Your task to perform on an android device: add a label to a message in the gmail app Image 0: 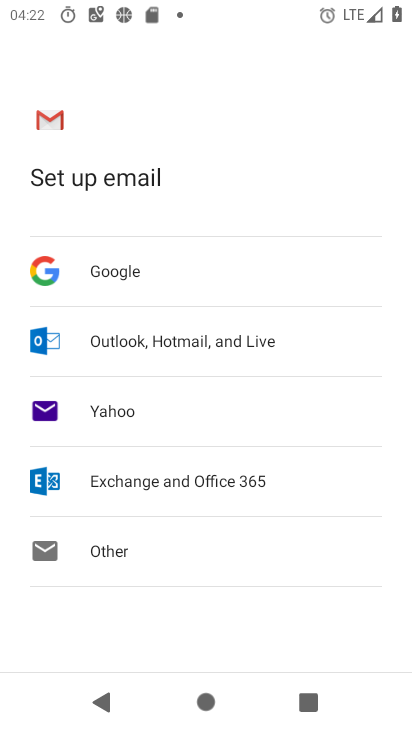
Step 0: press back button
Your task to perform on an android device: add a label to a message in the gmail app Image 1: 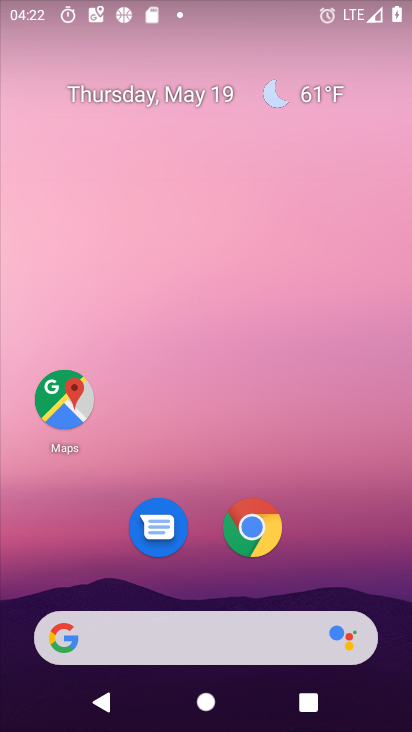
Step 1: drag from (195, 569) to (284, 54)
Your task to perform on an android device: add a label to a message in the gmail app Image 2: 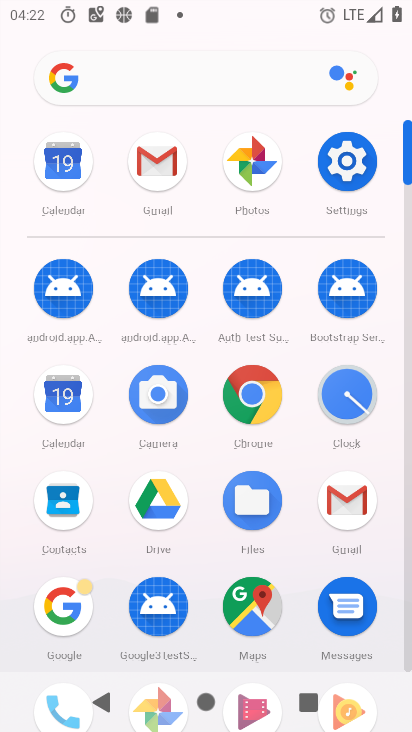
Step 2: click (172, 153)
Your task to perform on an android device: add a label to a message in the gmail app Image 3: 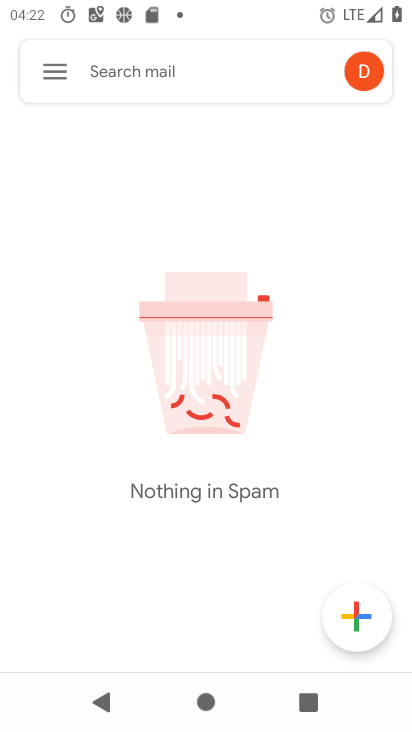
Step 3: click (55, 75)
Your task to perform on an android device: add a label to a message in the gmail app Image 4: 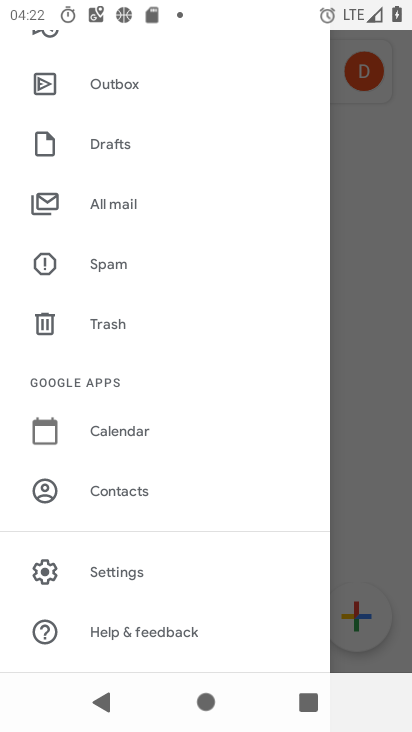
Step 4: click (122, 196)
Your task to perform on an android device: add a label to a message in the gmail app Image 5: 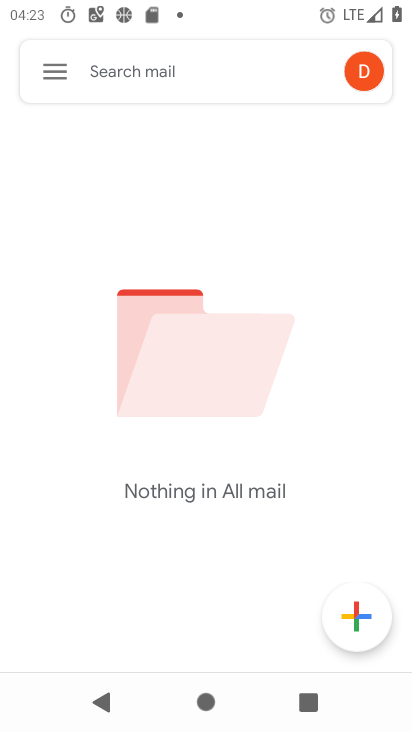
Step 5: task complete